Your task to perform on an android device: Open Amazon Image 0: 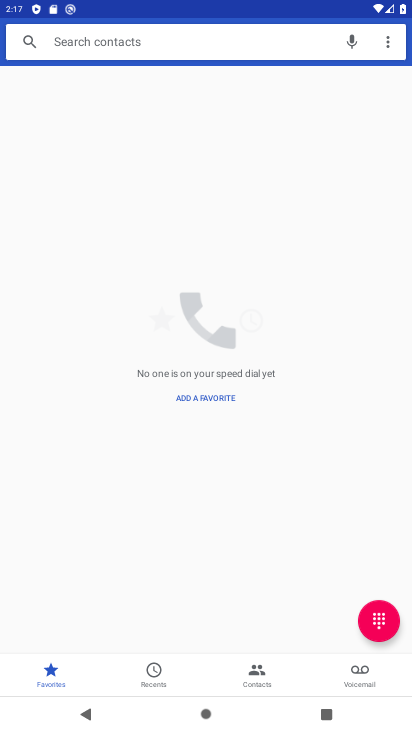
Step 0: press home button
Your task to perform on an android device: Open Amazon Image 1: 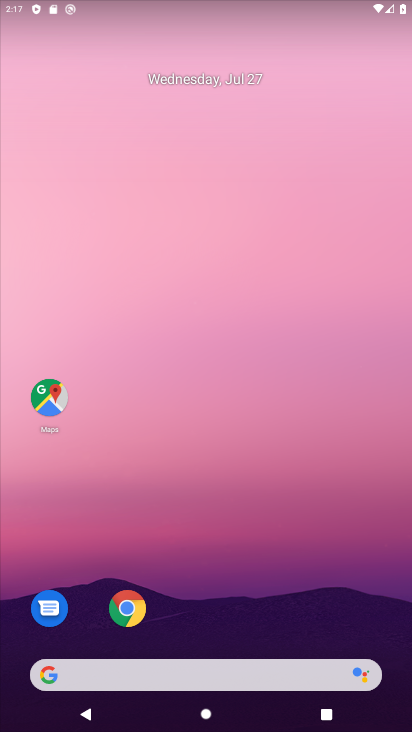
Step 1: drag from (258, 562) to (258, 167)
Your task to perform on an android device: Open Amazon Image 2: 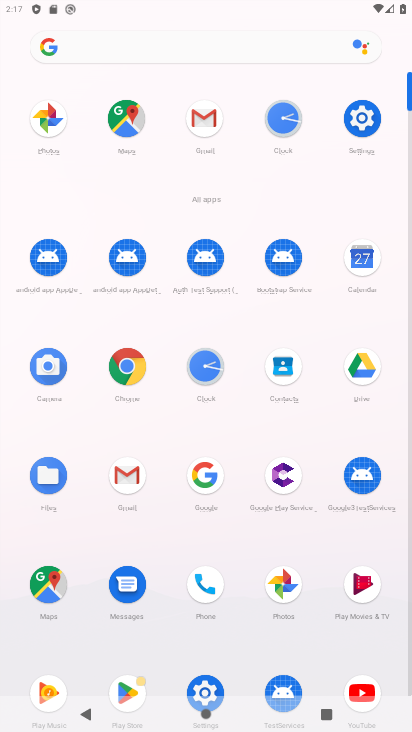
Step 2: click (125, 363)
Your task to perform on an android device: Open Amazon Image 3: 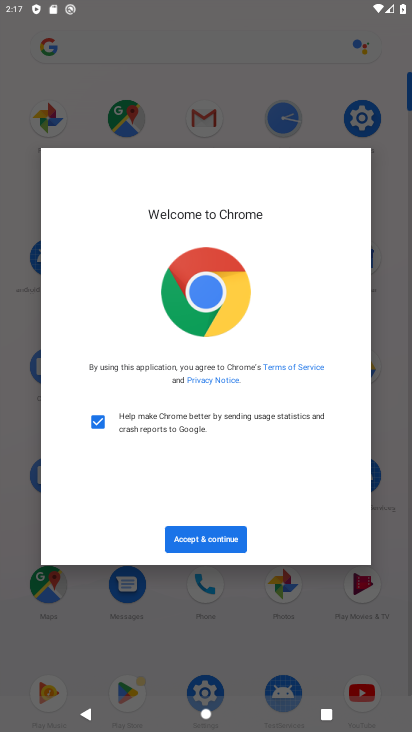
Step 3: click (202, 547)
Your task to perform on an android device: Open Amazon Image 4: 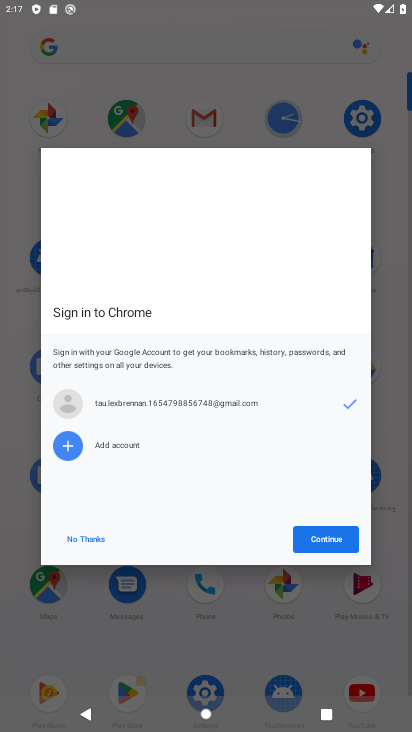
Step 4: click (334, 543)
Your task to perform on an android device: Open Amazon Image 5: 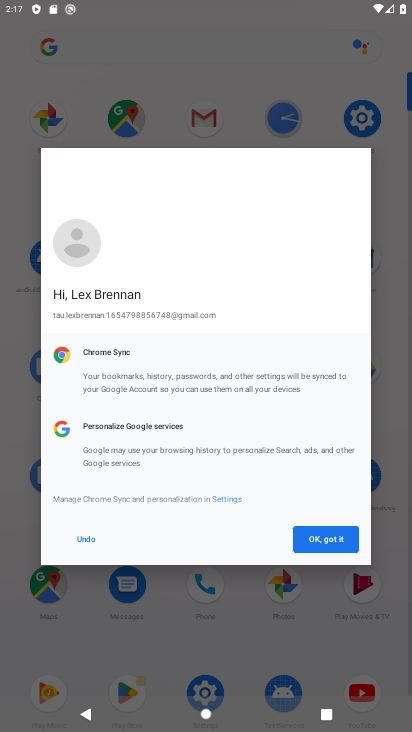
Step 5: click (334, 543)
Your task to perform on an android device: Open Amazon Image 6: 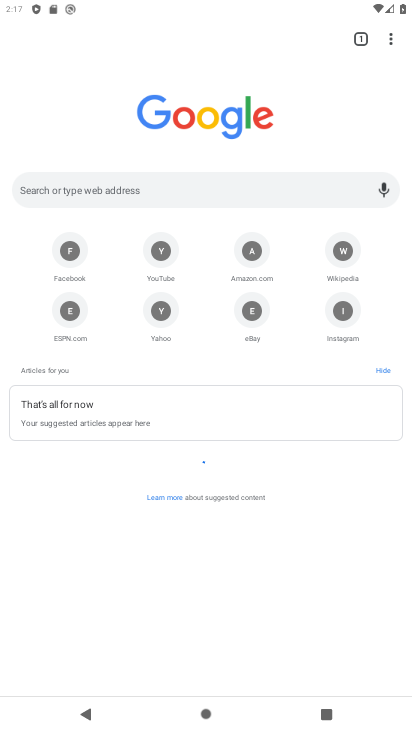
Step 6: click (257, 251)
Your task to perform on an android device: Open Amazon Image 7: 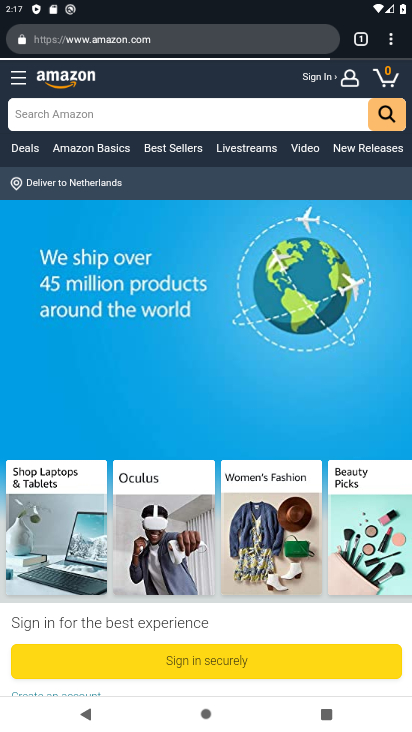
Step 7: task complete